Your task to perform on an android device: see creations saved in the google photos Image 0: 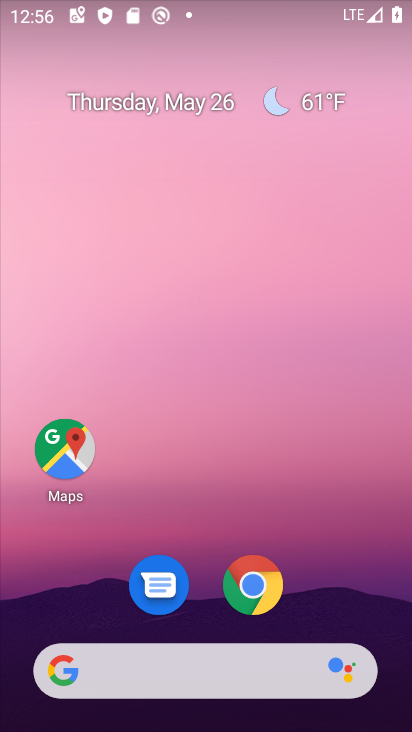
Step 0: drag from (249, 506) to (253, 1)
Your task to perform on an android device: see creations saved in the google photos Image 1: 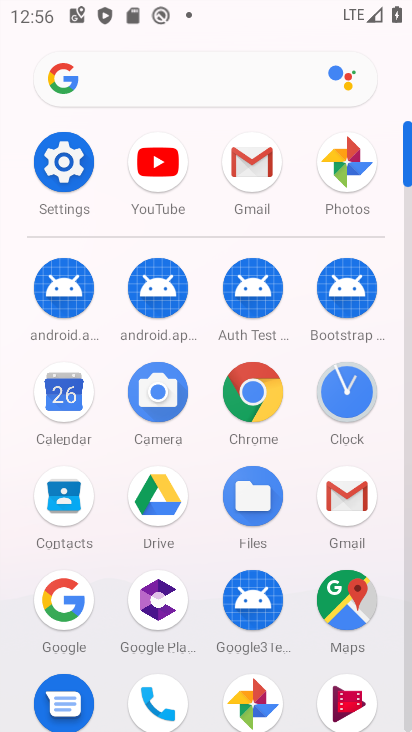
Step 1: click (350, 158)
Your task to perform on an android device: see creations saved in the google photos Image 2: 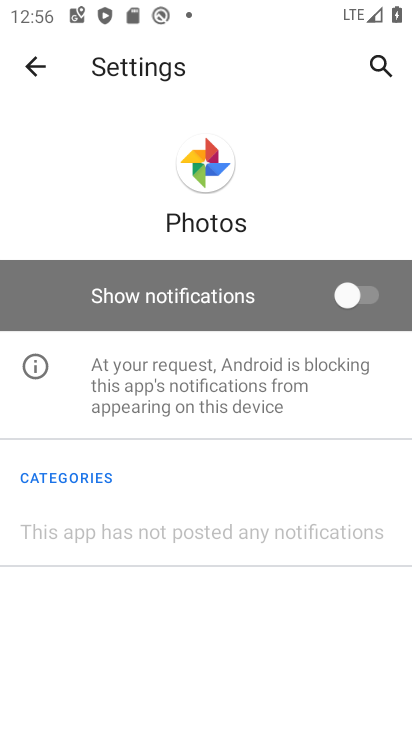
Step 2: click (45, 65)
Your task to perform on an android device: see creations saved in the google photos Image 3: 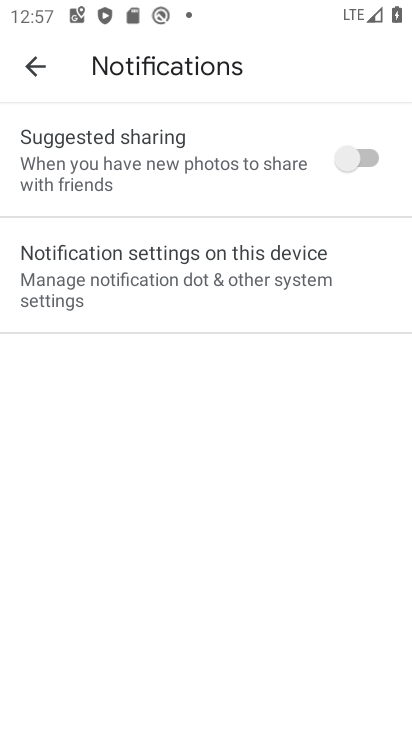
Step 3: click (40, 63)
Your task to perform on an android device: see creations saved in the google photos Image 4: 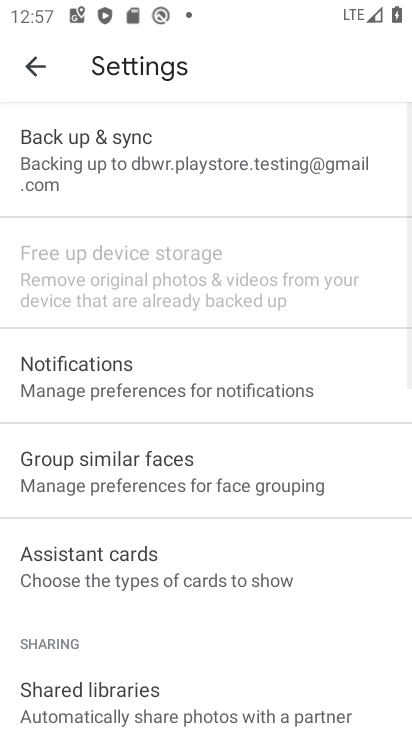
Step 4: click (40, 63)
Your task to perform on an android device: see creations saved in the google photos Image 5: 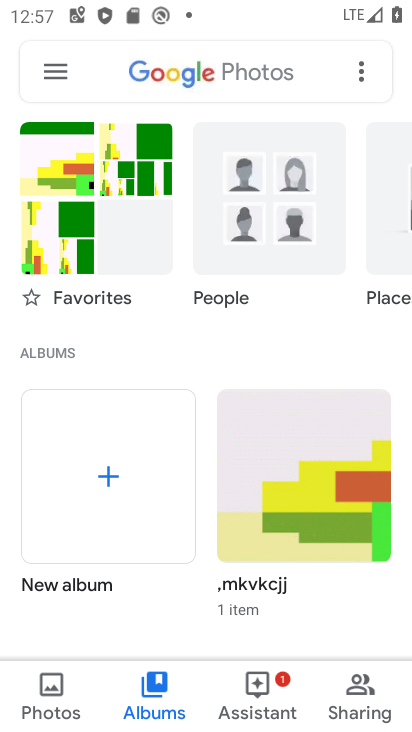
Step 5: click (146, 64)
Your task to perform on an android device: see creations saved in the google photos Image 6: 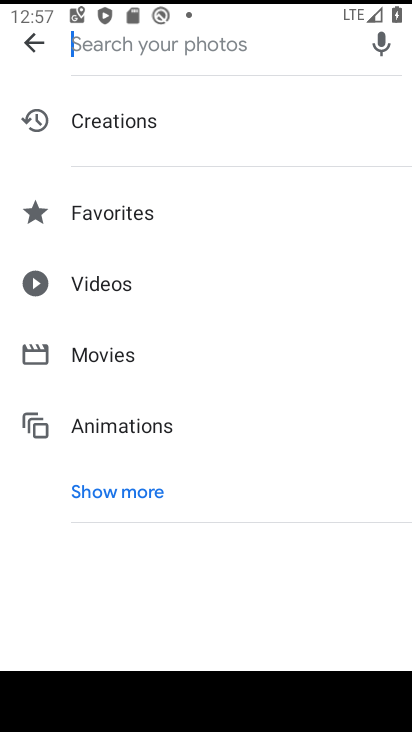
Step 6: click (127, 483)
Your task to perform on an android device: see creations saved in the google photos Image 7: 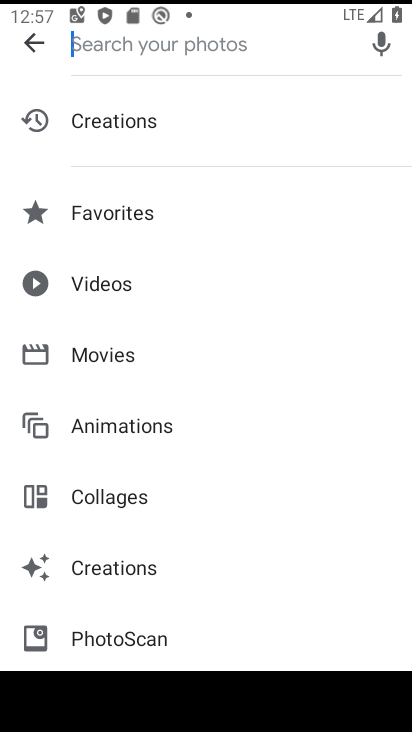
Step 7: click (132, 560)
Your task to perform on an android device: see creations saved in the google photos Image 8: 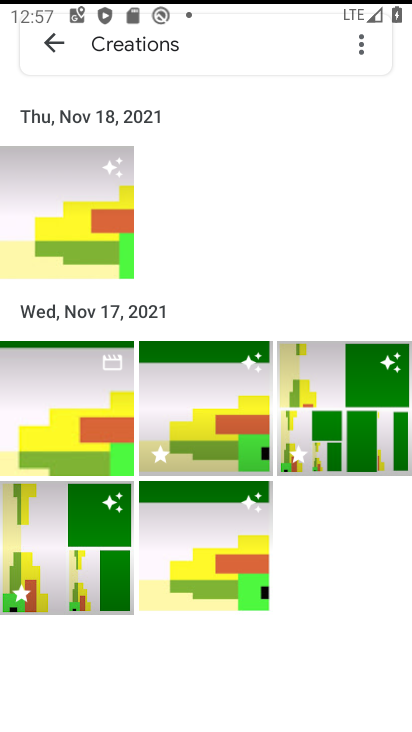
Step 8: task complete